Your task to perform on an android device: change the clock display to digital Image 0: 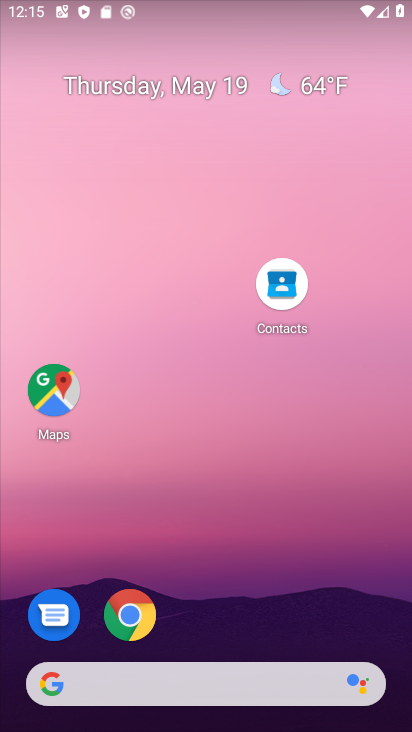
Step 0: drag from (149, 707) to (169, 70)
Your task to perform on an android device: change the clock display to digital Image 1: 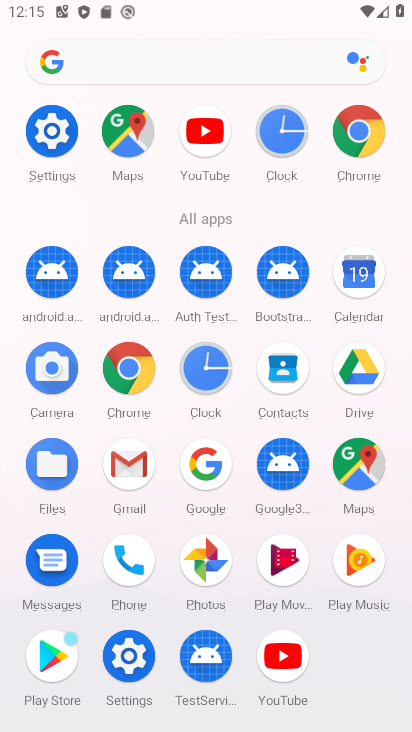
Step 1: click (211, 402)
Your task to perform on an android device: change the clock display to digital Image 2: 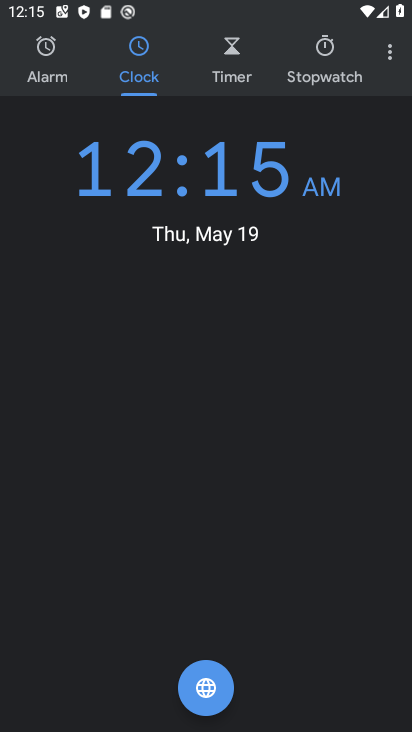
Step 2: click (390, 52)
Your task to perform on an android device: change the clock display to digital Image 3: 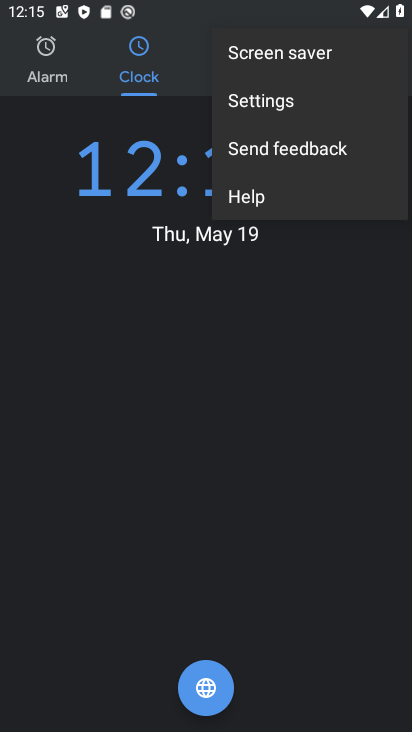
Step 3: click (298, 101)
Your task to perform on an android device: change the clock display to digital Image 4: 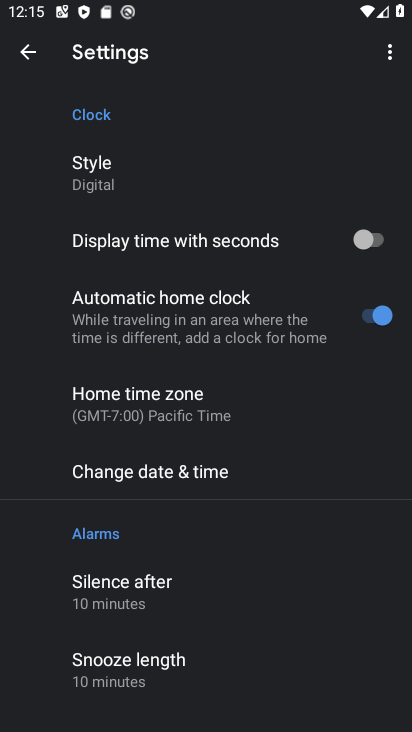
Step 4: click (97, 191)
Your task to perform on an android device: change the clock display to digital Image 5: 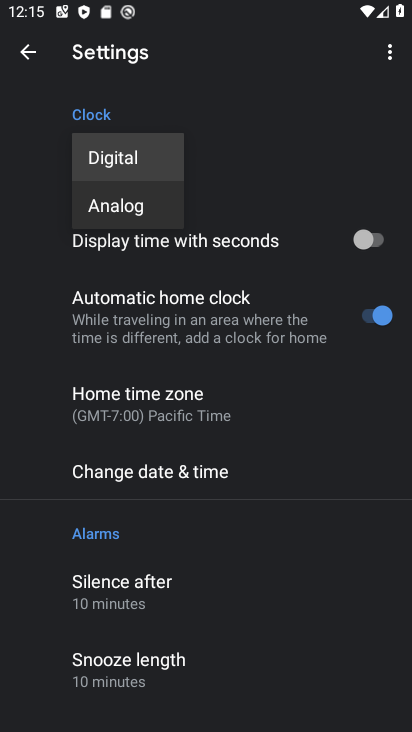
Step 5: task complete